Your task to perform on an android device: change the clock style Image 0: 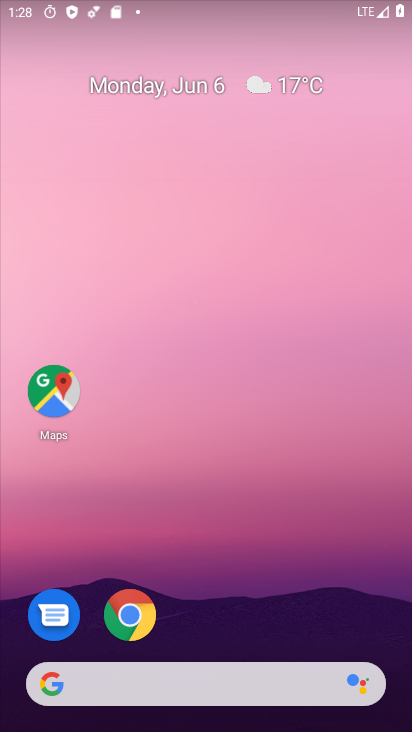
Step 0: drag from (191, 628) to (201, 82)
Your task to perform on an android device: change the clock style Image 1: 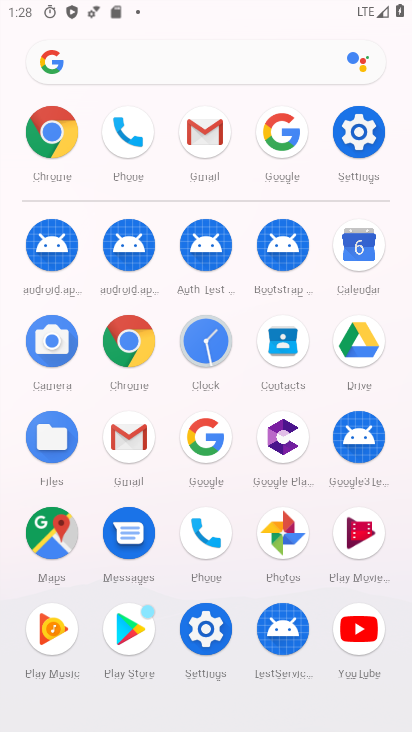
Step 1: click (354, 130)
Your task to perform on an android device: change the clock style Image 2: 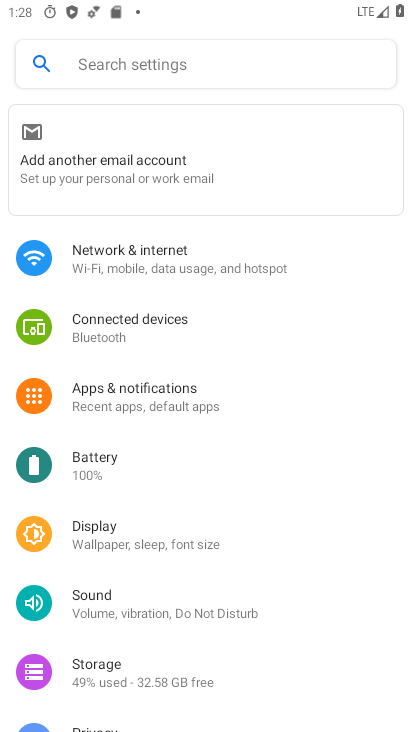
Step 2: press home button
Your task to perform on an android device: change the clock style Image 3: 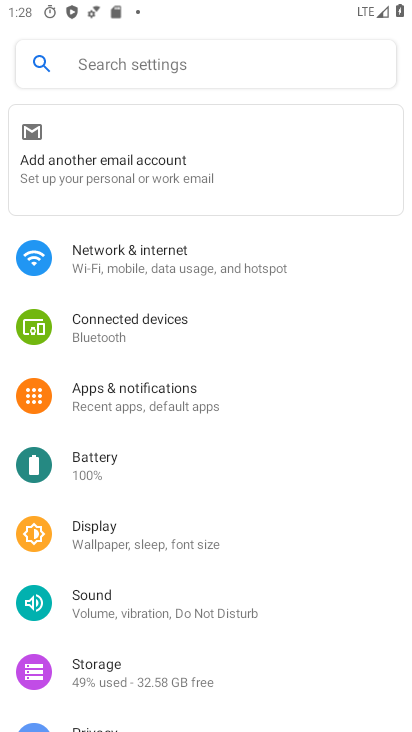
Step 3: drag from (279, 623) to (283, 49)
Your task to perform on an android device: change the clock style Image 4: 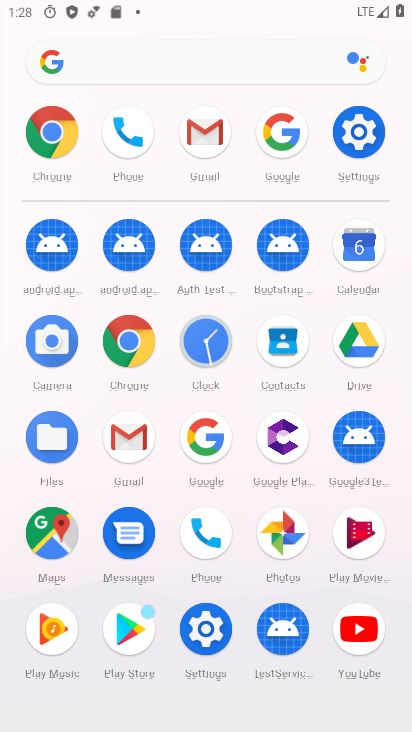
Step 4: click (206, 335)
Your task to perform on an android device: change the clock style Image 5: 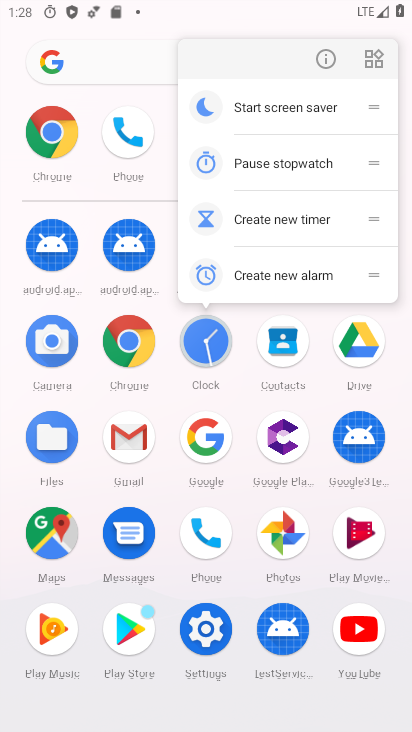
Step 5: click (331, 57)
Your task to perform on an android device: change the clock style Image 6: 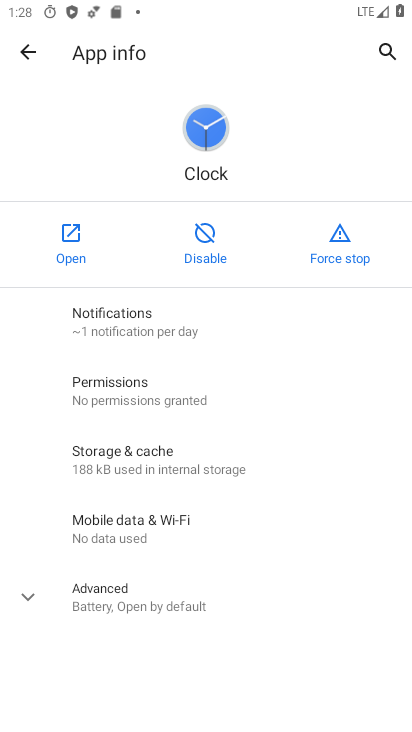
Step 6: click (109, 245)
Your task to perform on an android device: change the clock style Image 7: 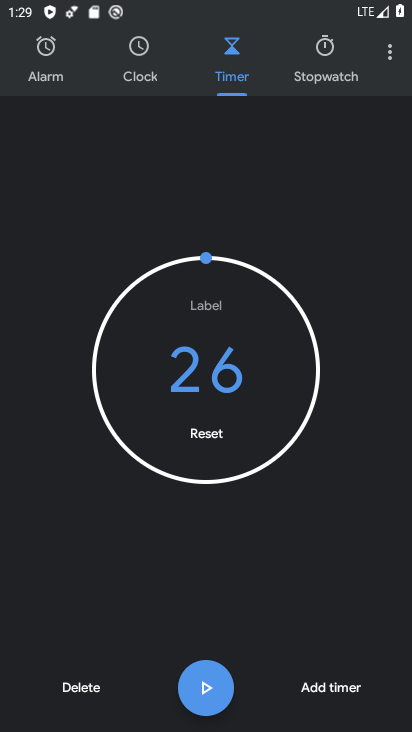
Step 7: click (387, 52)
Your task to perform on an android device: change the clock style Image 8: 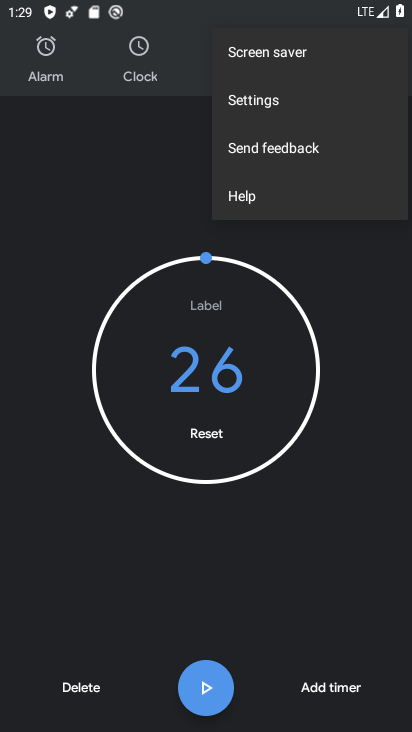
Step 8: click (267, 90)
Your task to perform on an android device: change the clock style Image 9: 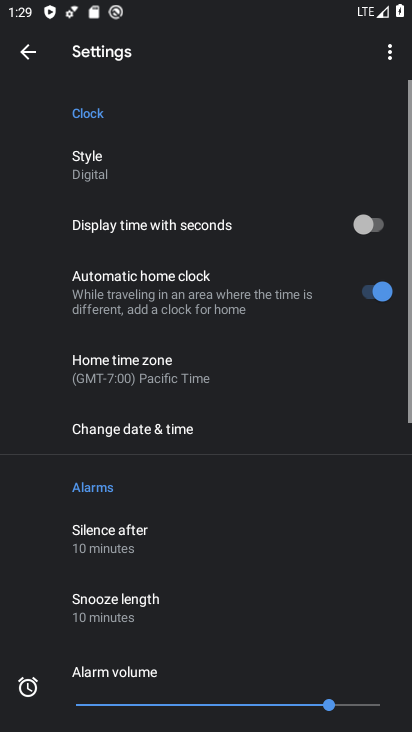
Step 9: drag from (264, 569) to (282, 8)
Your task to perform on an android device: change the clock style Image 10: 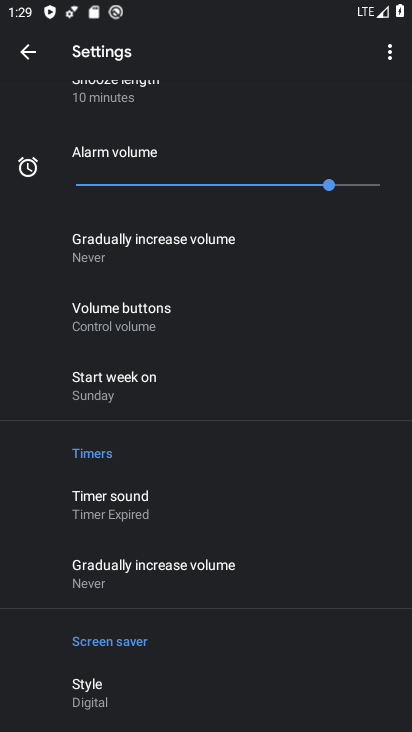
Step 10: drag from (219, 544) to (261, 144)
Your task to perform on an android device: change the clock style Image 11: 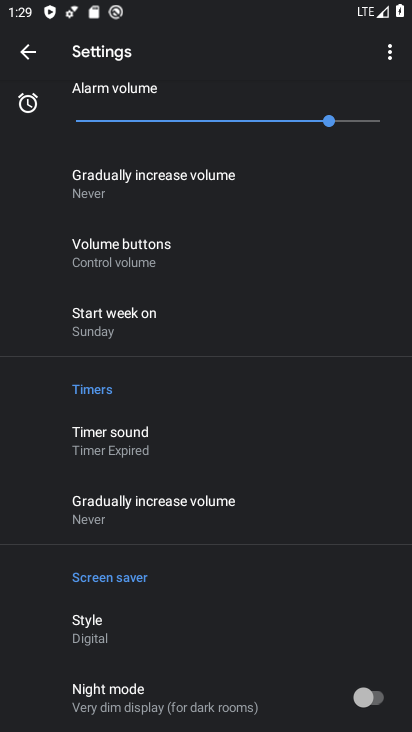
Step 11: drag from (182, 287) to (243, 727)
Your task to perform on an android device: change the clock style Image 12: 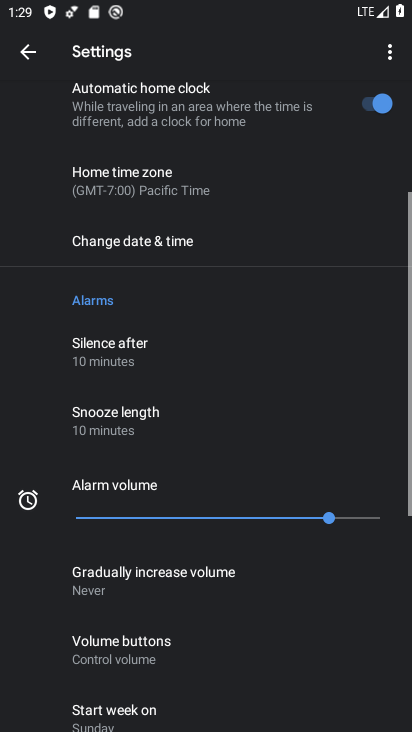
Step 12: drag from (248, 615) to (243, 294)
Your task to perform on an android device: change the clock style Image 13: 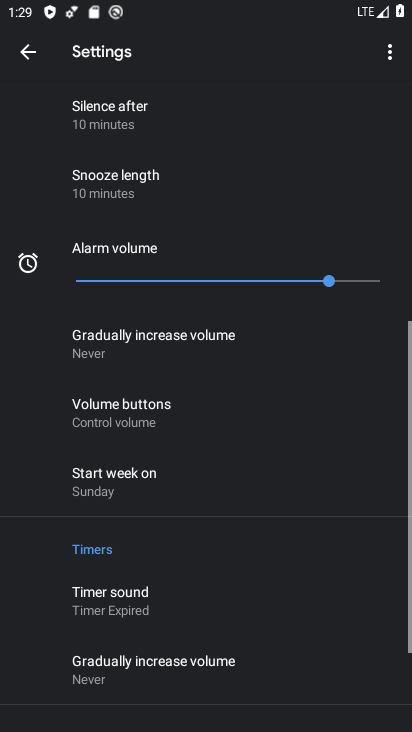
Step 13: drag from (245, 268) to (325, 729)
Your task to perform on an android device: change the clock style Image 14: 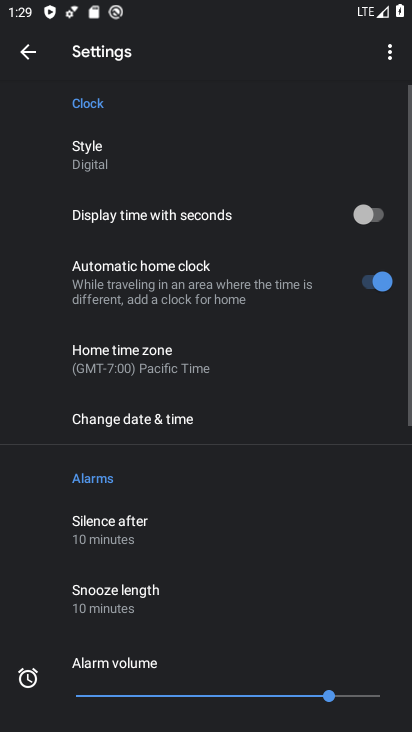
Step 14: drag from (293, 482) to (312, 241)
Your task to perform on an android device: change the clock style Image 15: 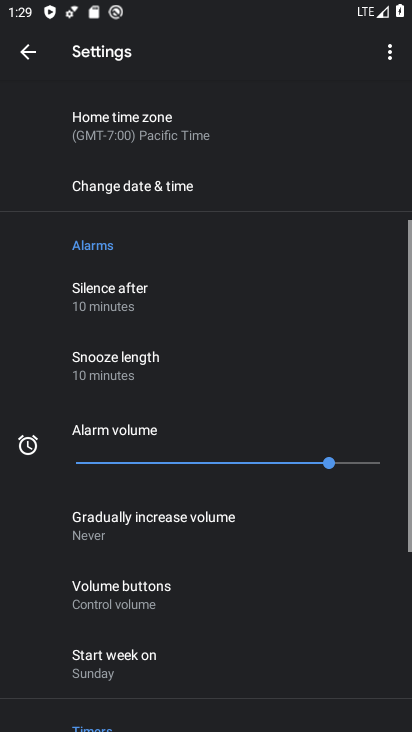
Step 15: drag from (312, 210) to (243, 726)
Your task to perform on an android device: change the clock style Image 16: 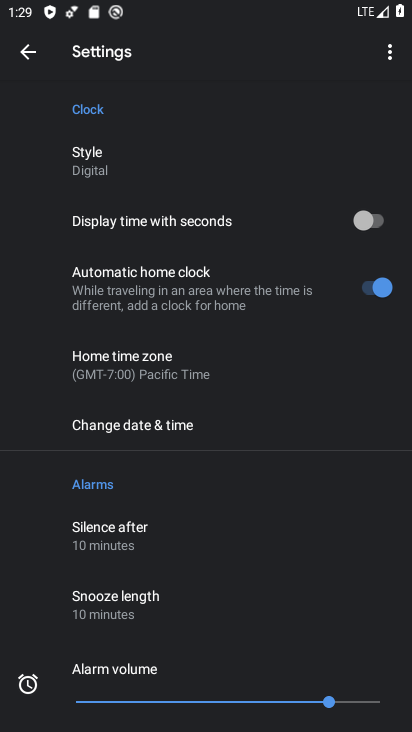
Step 16: drag from (286, 270) to (280, 712)
Your task to perform on an android device: change the clock style Image 17: 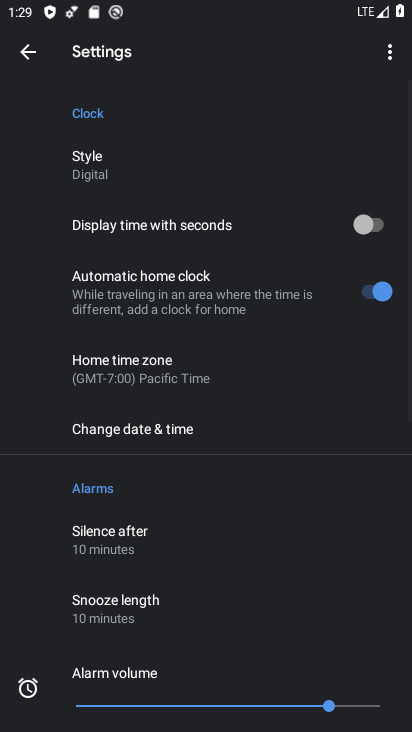
Step 17: drag from (263, 574) to (274, 269)
Your task to perform on an android device: change the clock style Image 18: 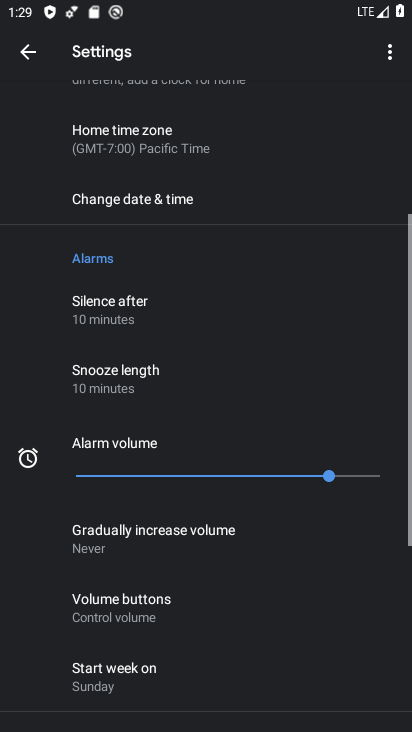
Step 18: drag from (276, 255) to (269, 715)
Your task to perform on an android device: change the clock style Image 19: 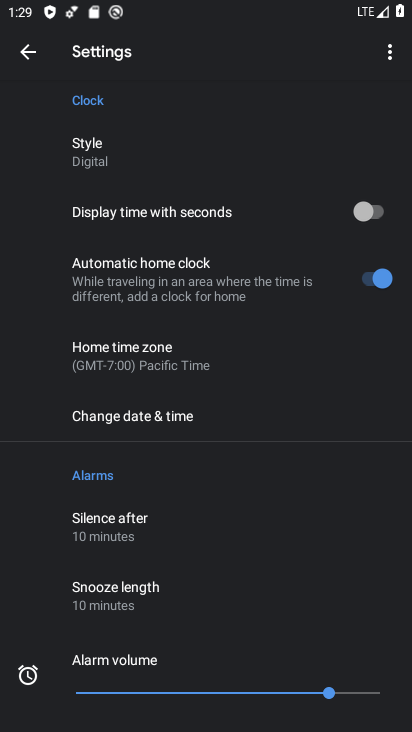
Step 19: click (135, 139)
Your task to perform on an android device: change the clock style Image 20: 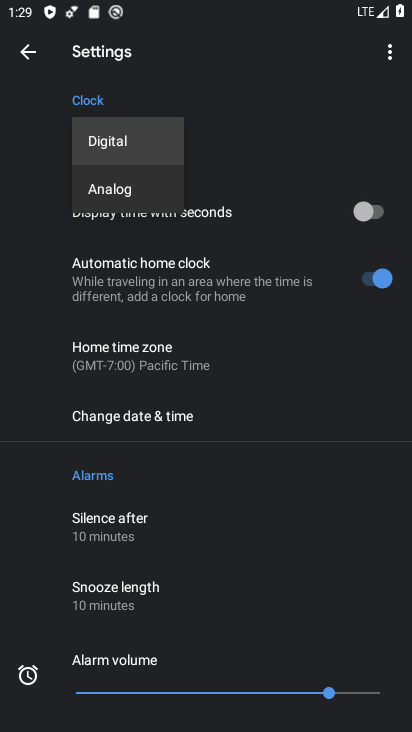
Step 20: click (130, 133)
Your task to perform on an android device: change the clock style Image 21: 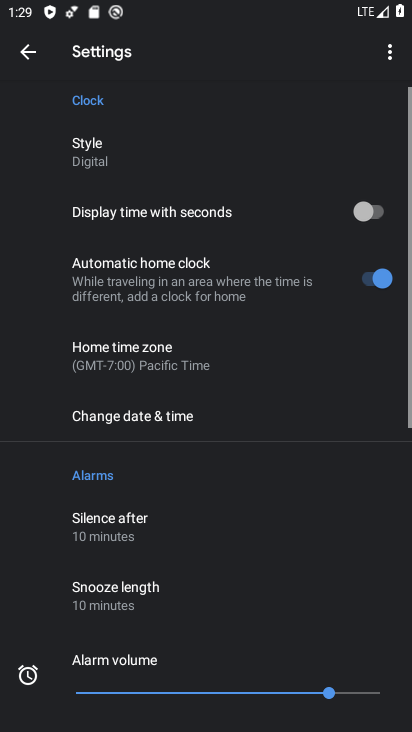
Step 21: task complete